Your task to perform on an android device: Go to Wikipedia Image 0: 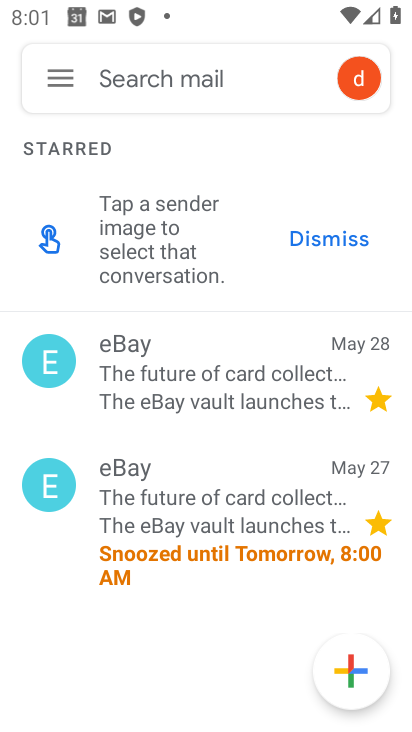
Step 0: press home button
Your task to perform on an android device: Go to Wikipedia Image 1: 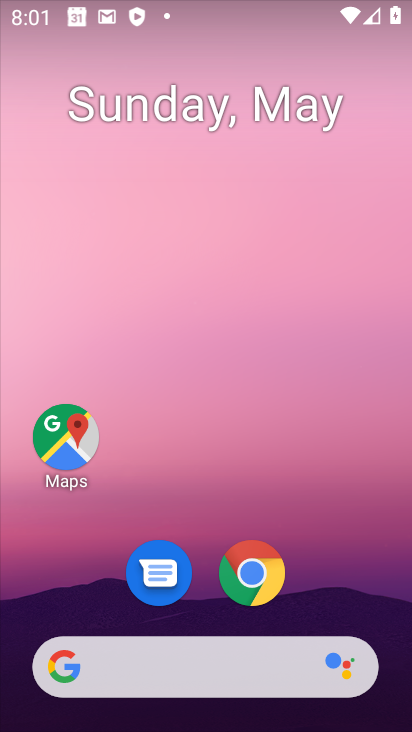
Step 1: click (261, 575)
Your task to perform on an android device: Go to Wikipedia Image 2: 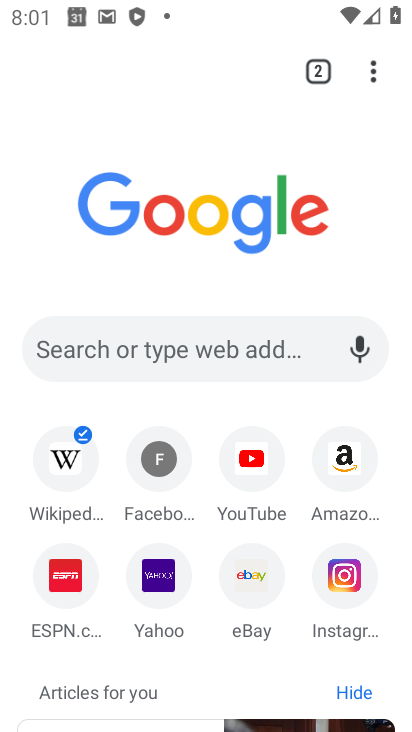
Step 2: click (318, 68)
Your task to perform on an android device: Go to Wikipedia Image 3: 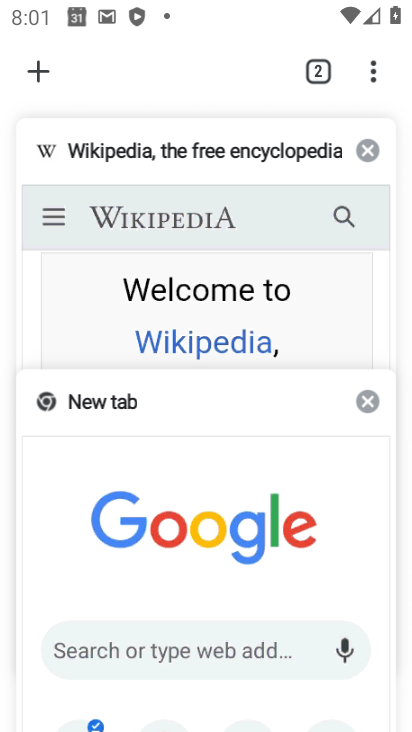
Step 3: click (250, 211)
Your task to perform on an android device: Go to Wikipedia Image 4: 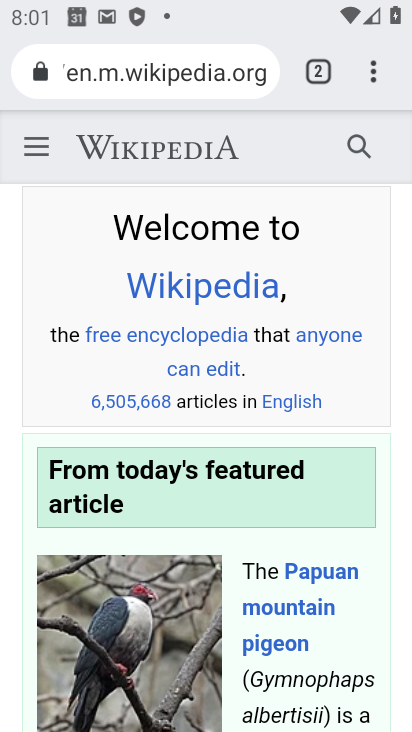
Step 4: task complete